Your task to perform on an android device: Open the stopwatch Image 0: 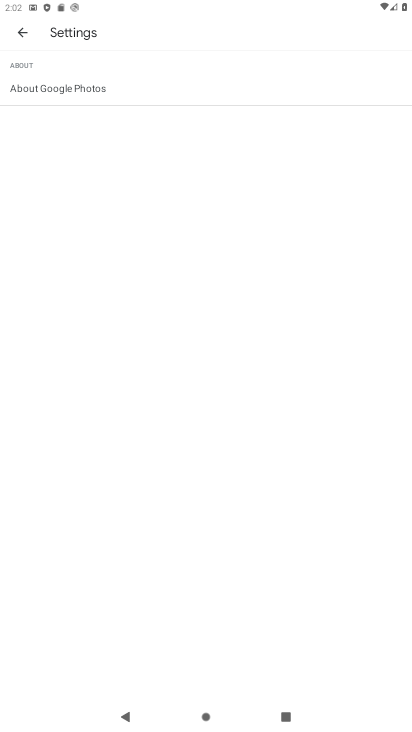
Step 0: press home button
Your task to perform on an android device: Open the stopwatch Image 1: 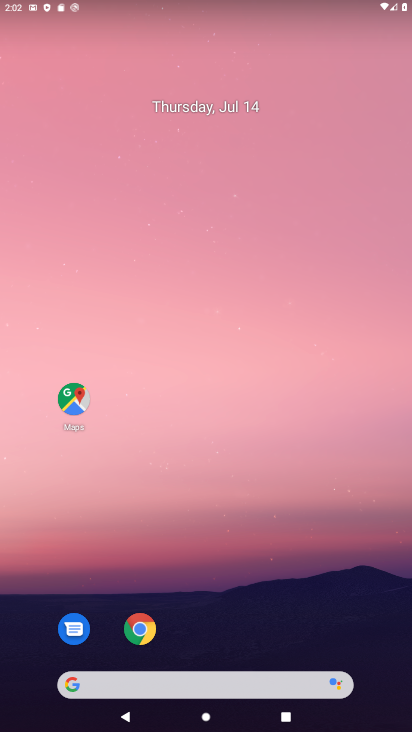
Step 1: drag from (206, 643) to (167, 50)
Your task to perform on an android device: Open the stopwatch Image 2: 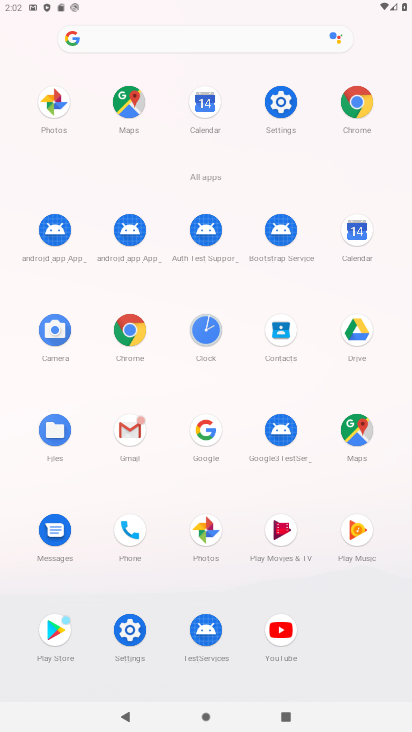
Step 2: click (205, 334)
Your task to perform on an android device: Open the stopwatch Image 3: 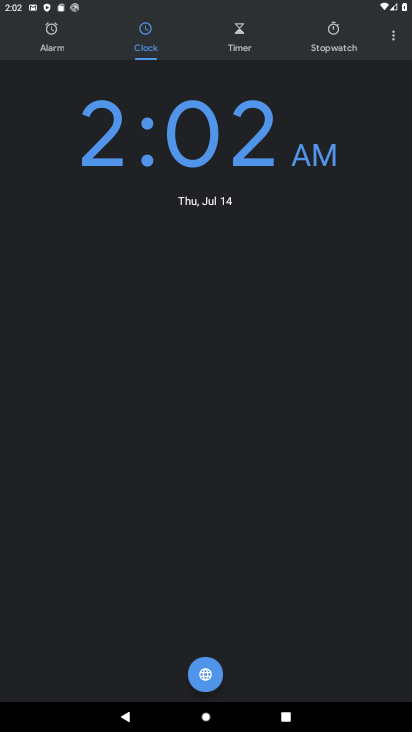
Step 3: click (341, 38)
Your task to perform on an android device: Open the stopwatch Image 4: 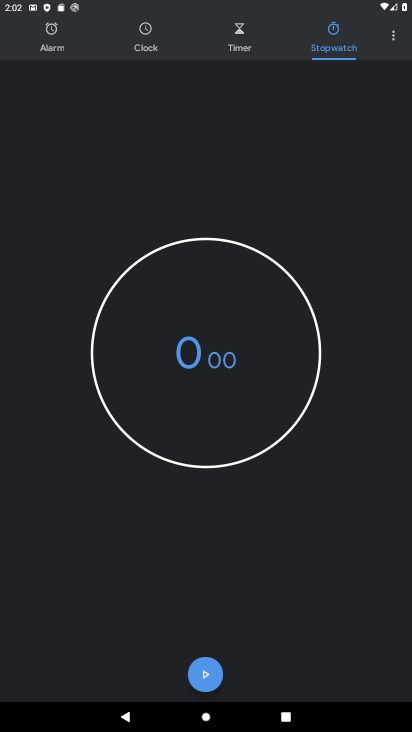
Step 4: click (214, 670)
Your task to perform on an android device: Open the stopwatch Image 5: 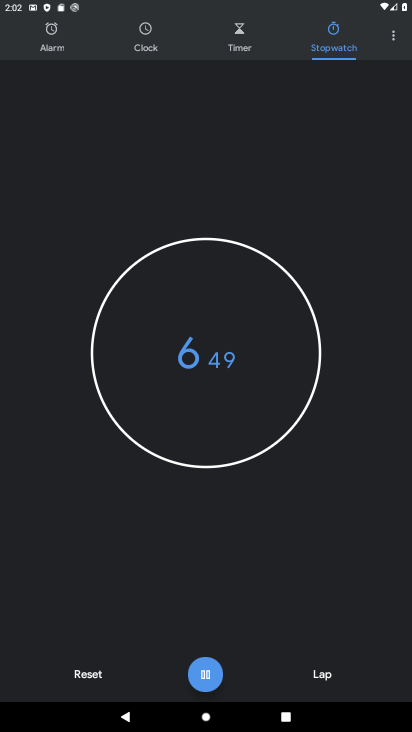
Step 5: task complete